Your task to perform on an android device: Check the weather Image 0: 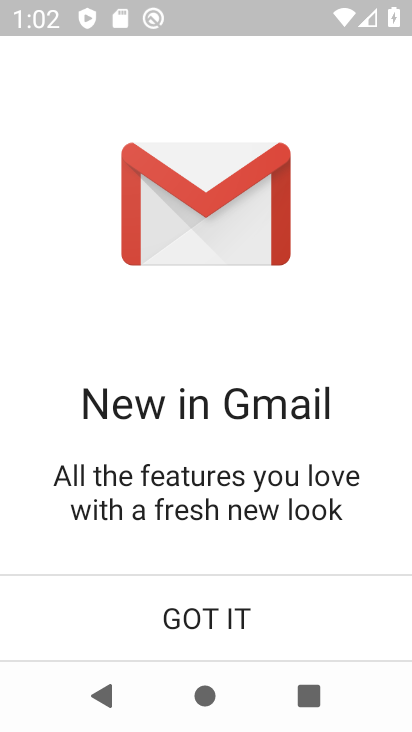
Step 0: press home button
Your task to perform on an android device: Check the weather Image 1: 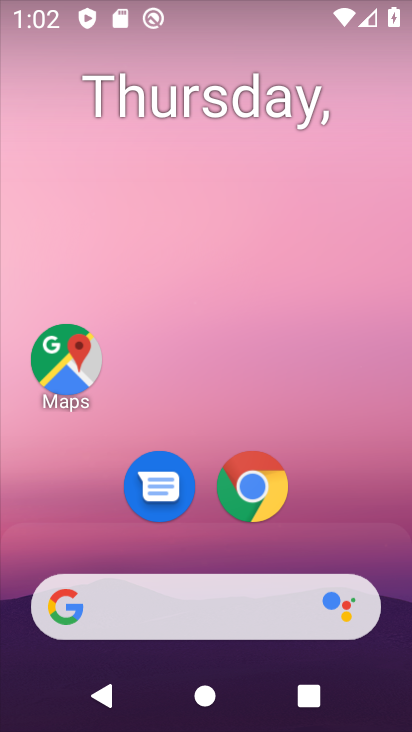
Step 1: drag from (315, 531) to (224, 7)
Your task to perform on an android device: Check the weather Image 2: 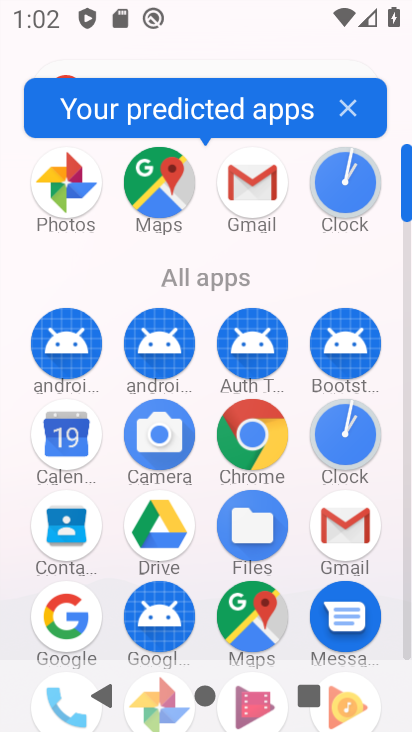
Step 2: click (60, 632)
Your task to perform on an android device: Check the weather Image 3: 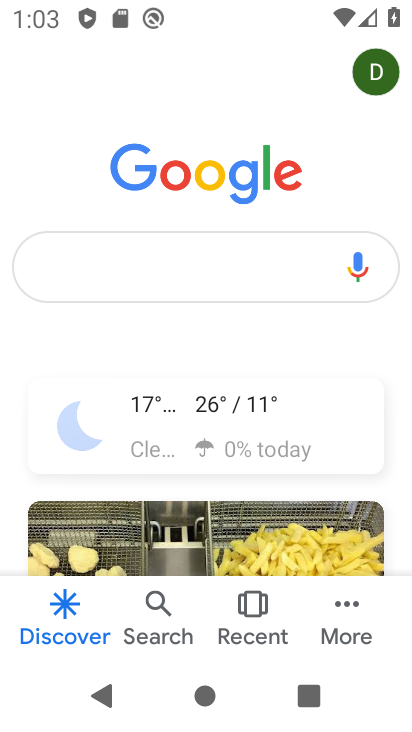
Step 3: click (237, 398)
Your task to perform on an android device: Check the weather Image 4: 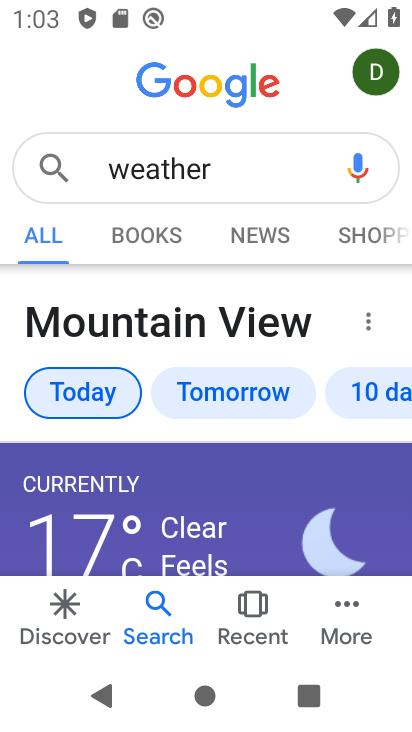
Step 4: task complete